Your task to perform on an android device: Open the web browser Image 0: 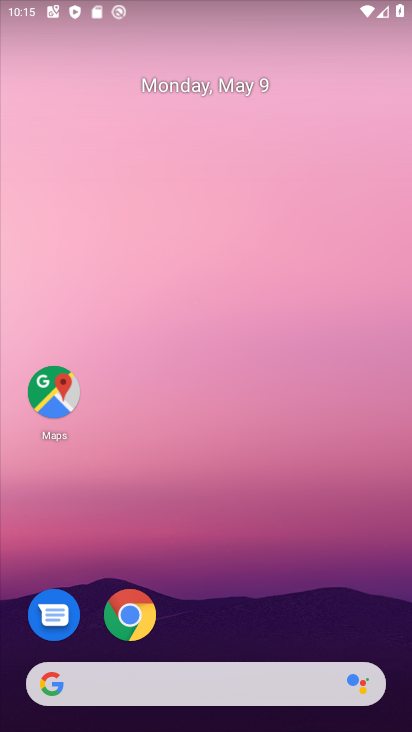
Step 0: click (133, 617)
Your task to perform on an android device: Open the web browser Image 1: 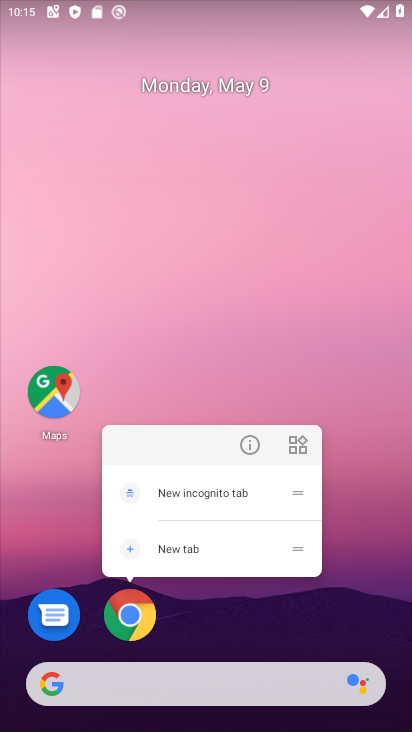
Step 1: click (128, 613)
Your task to perform on an android device: Open the web browser Image 2: 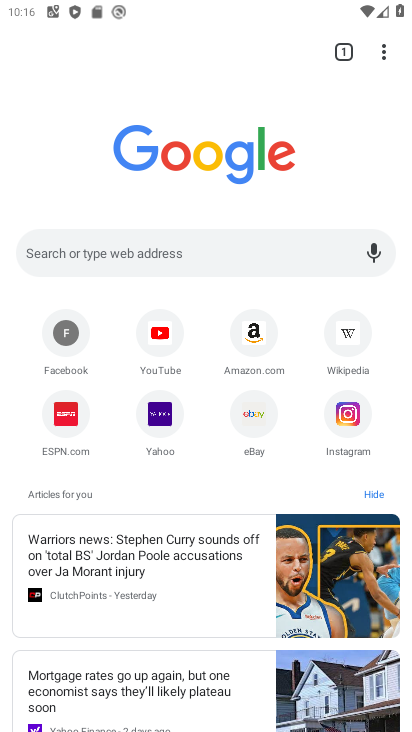
Step 2: click (131, 250)
Your task to perform on an android device: Open the web browser Image 3: 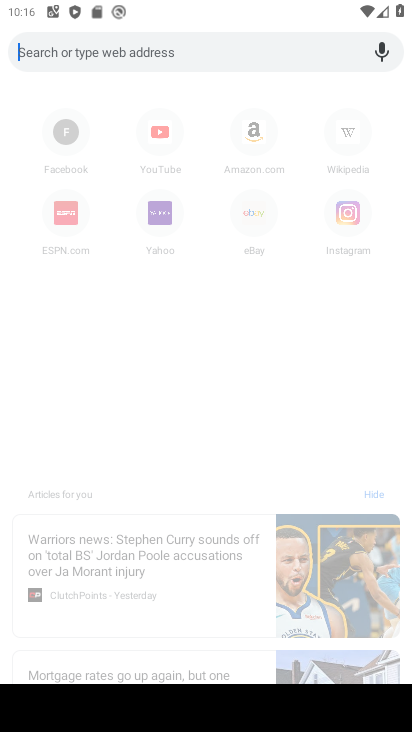
Step 3: task complete